Your task to perform on an android device: Search for pizza restaurants on Maps Image 0: 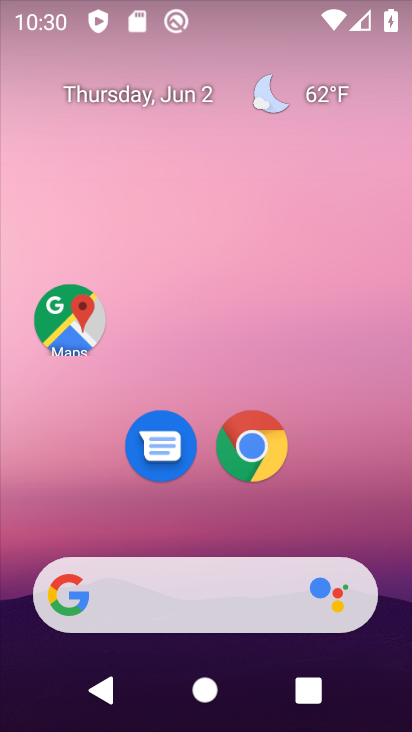
Step 0: click (72, 328)
Your task to perform on an android device: Search for pizza restaurants on Maps Image 1: 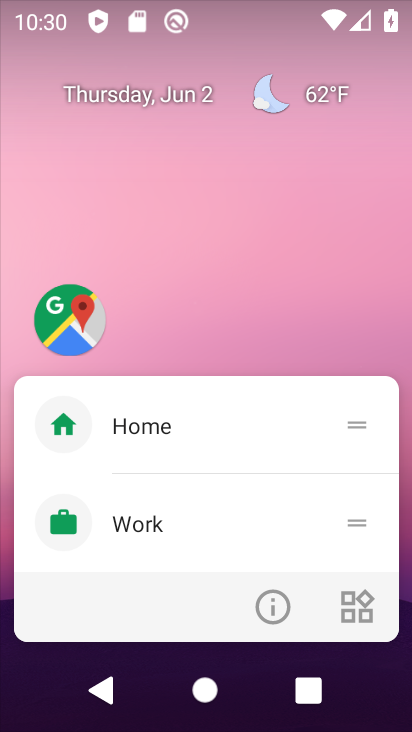
Step 1: click (71, 325)
Your task to perform on an android device: Search for pizza restaurants on Maps Image 2: 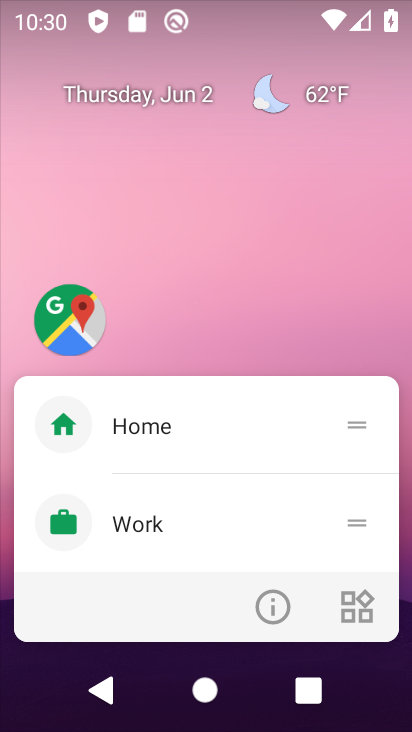
Step 2: click (71, 322)
Your task to perform on an android device: Search for pizza restaurants on Maps Image 3: 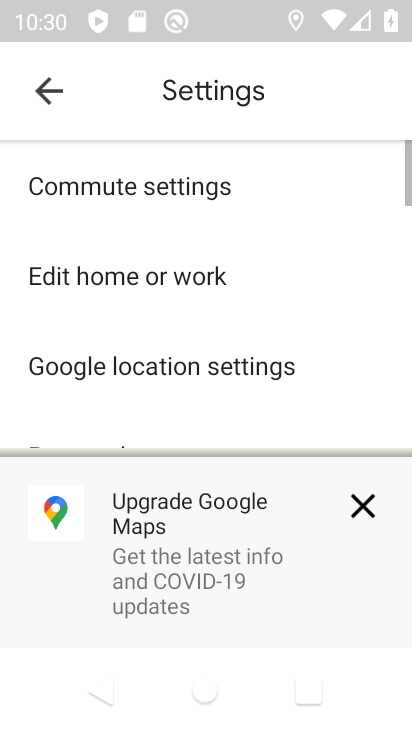
Step 3: click (48, 102)
Your task to perform on an android device: Search for pizza restaurants on Maps Image 4: 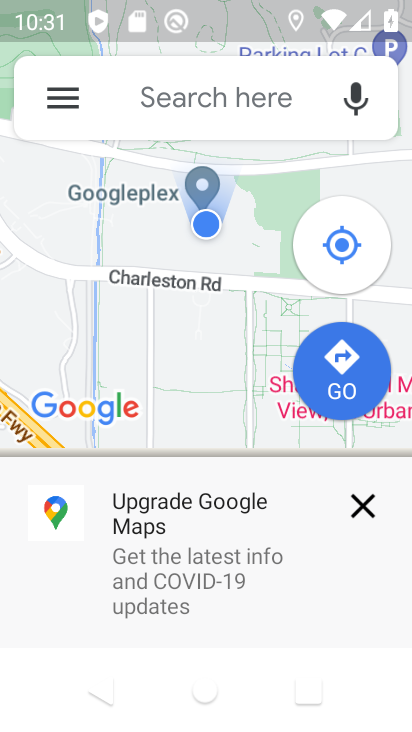
Step 4: click (202, 90)
Your task to perform on an android device: Search for pizza restaurants on Maps Image 5: 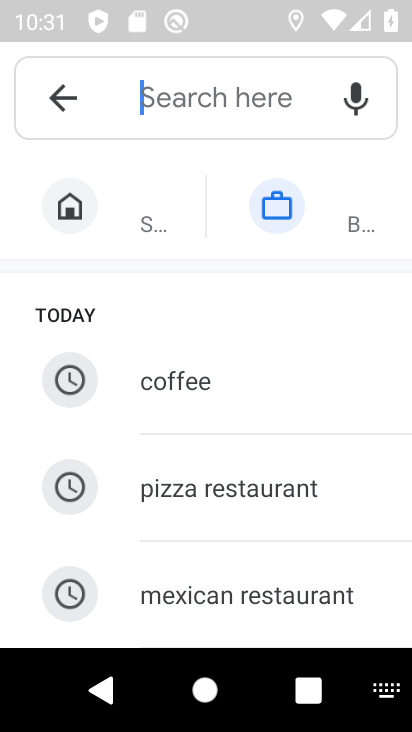
Step 5: type "pizza restaurants"
Your task to perform on an android device: Search for pizza restaurants on Maps Image 6: 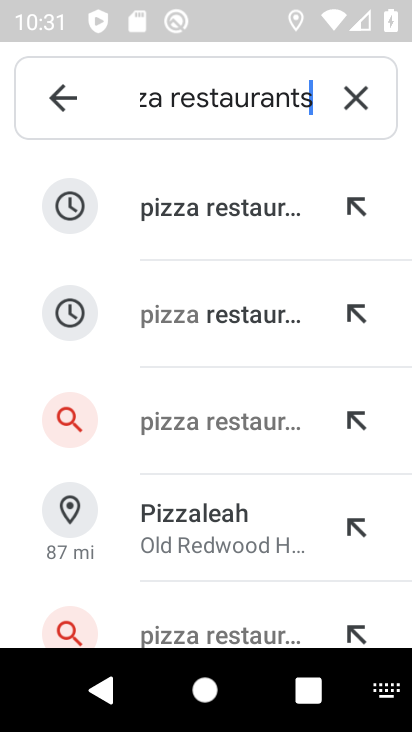
Step 6: press enter
Your task to perform on an android device: Search for pizza restaurants on Maps Image 7: 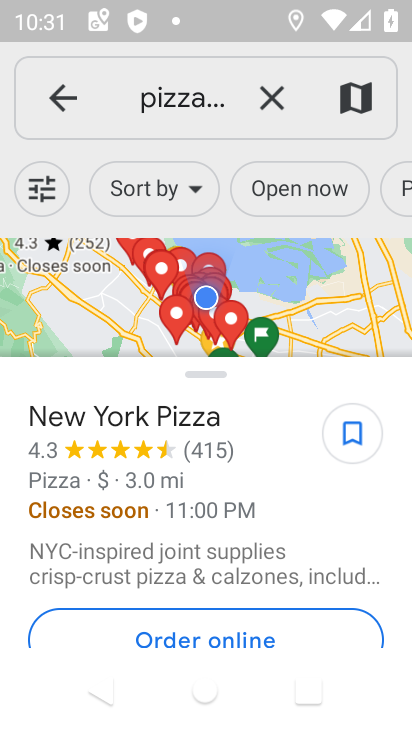
Step 7: task complete